Your task to perform on an android device: allow notifications from all sites in the chrome app Image 0: 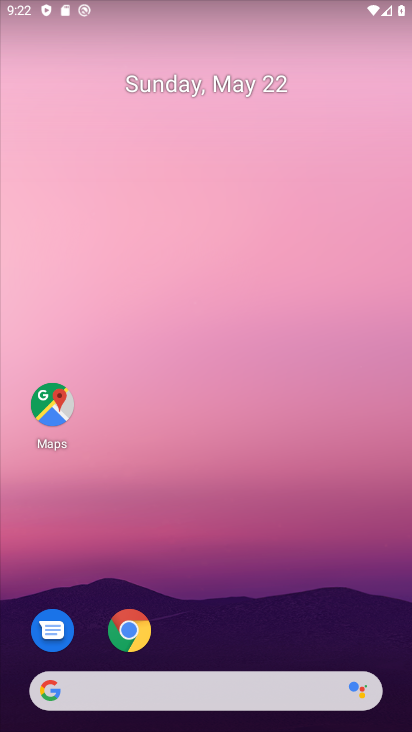
Step 0: drag from (379, 630) to (368, 179)
Your task to perform on an android device: allow notifications from all sites in the chrome app Image 1: 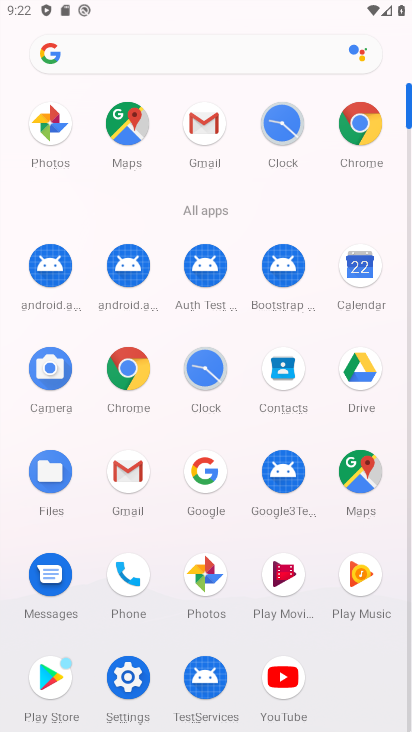
Step 1: click (124, 388)
Your task to perform on an android device: allow notifications from all sites in the chrome app Image 2: 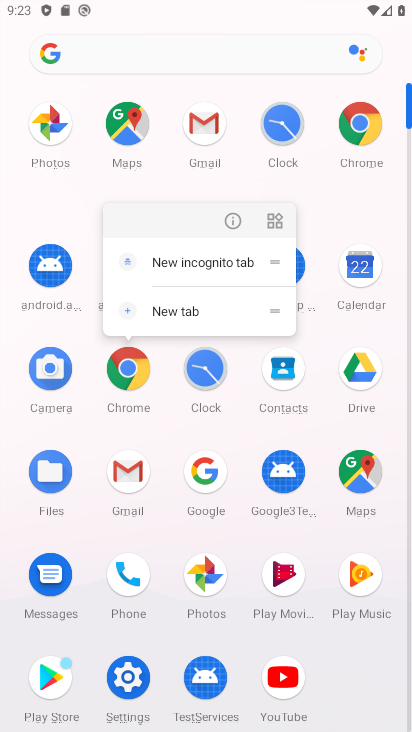
Step 2: click (364, 123)
Your task to perform on an android device: allow notifications from all sites in the chrome app Image 3: 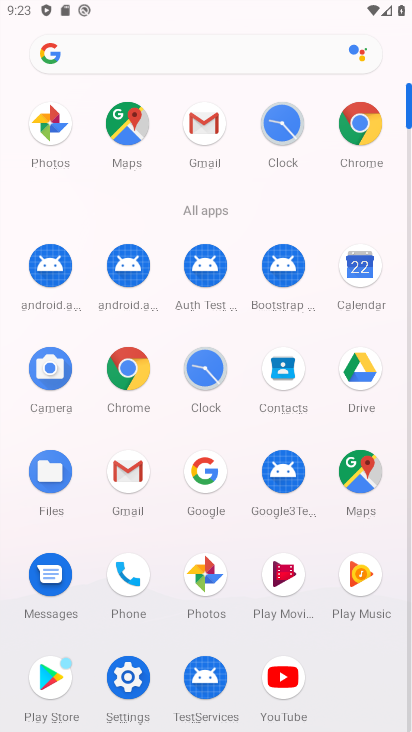
Step 3: click (131, 382)
Your task to perform on an android device: allow notifications from all sites in the chrome app Image 4: 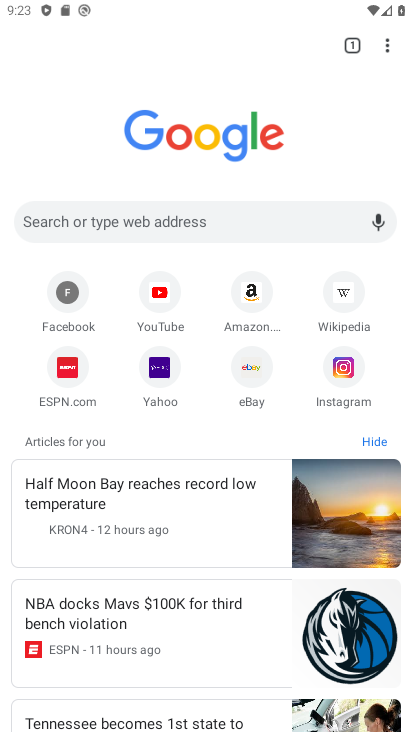
Step 4: click (388, 52)
Your task to perform on an android device: allow notifications from all sites in the chrome app Image 5: 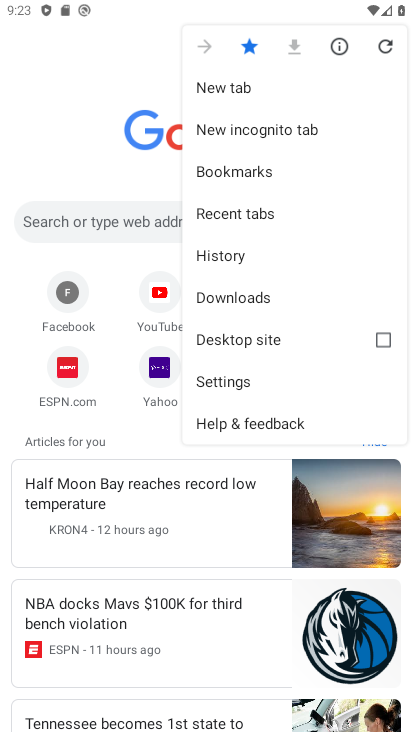
Step 5: click (231, 376)
Your task to perform on an android device: allow notifications from all sites in the chrome app Image 6: 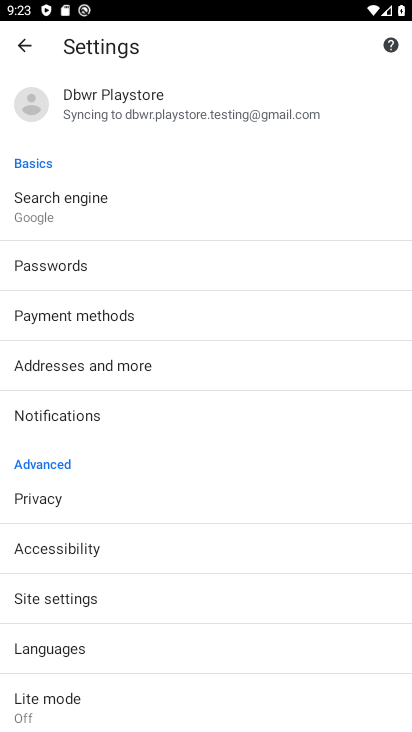
Step 6: drag from (267, 539) to (276, 391)
Your task to perform on an android device: allow notifications from all sites in the chrome app Image 7: 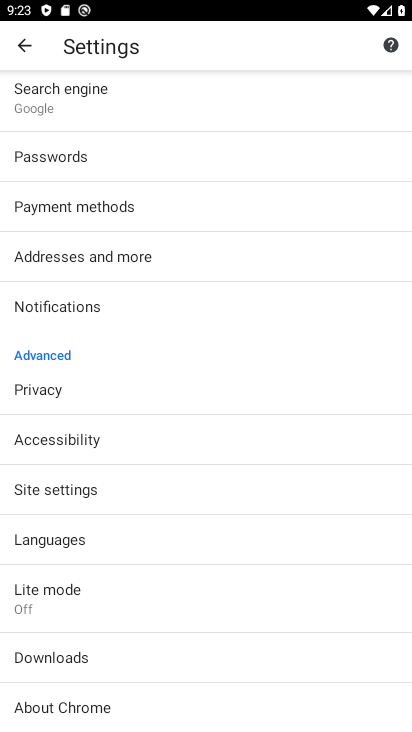
Step 7: drag from (259, 613) to (283, 466)
Your task to perform on an android device: allow notifications from all sites in the chrome app Image 8: 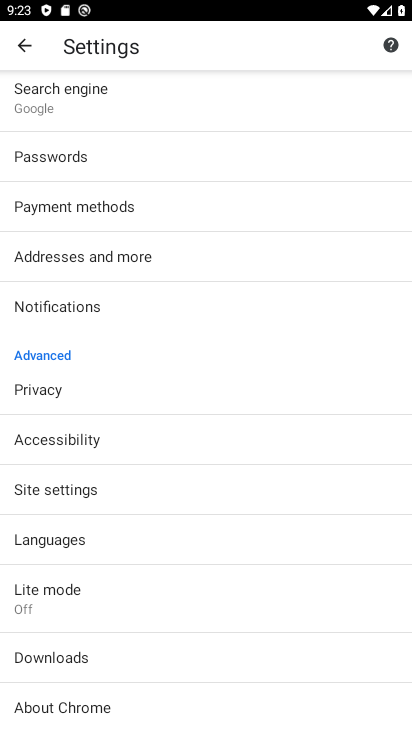
Step 8: drag from (268, 583) to (285, 384)
Your task to perform on an android device: allow notifications from all sites in the chrome app Image 9: 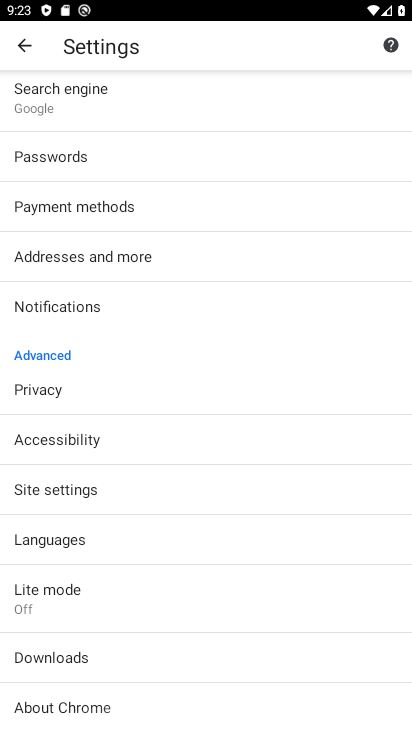
Step 9: drag from (313, 336) to (321, 401)
Your task to perform on an android device: allow notifications from all sites in the chrome app Image 10: 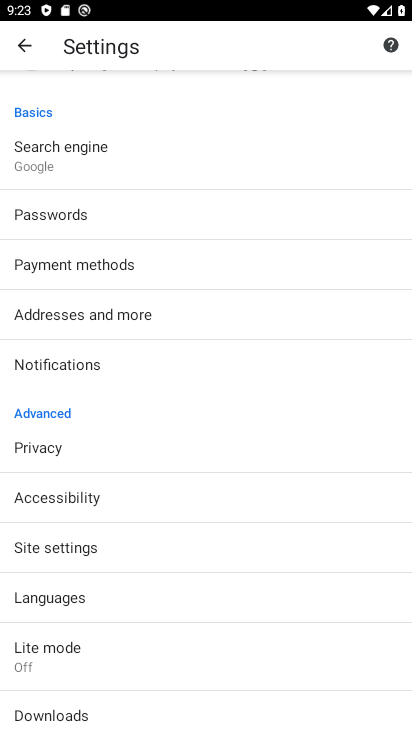
Step 10: drag from (320, 247) to (299, 399)
Your task to perform on an android device: allow notifications from all sites in the chrome app Image 11: 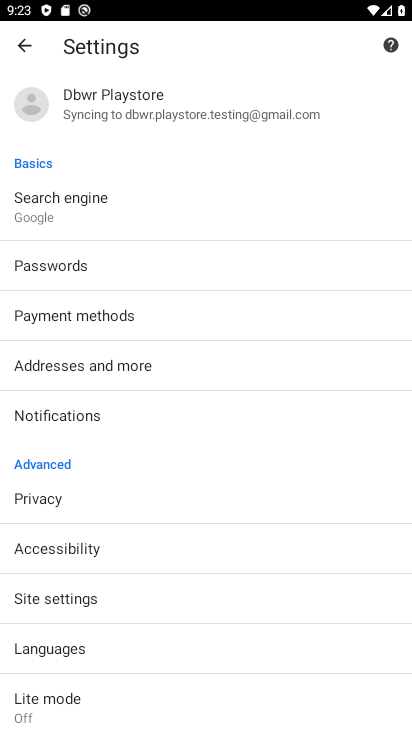
Step 11: drag from (300, 273) to (288, 507)
Your task to perform on an android device: allow notifications from all sites in the chrome app Image 12: 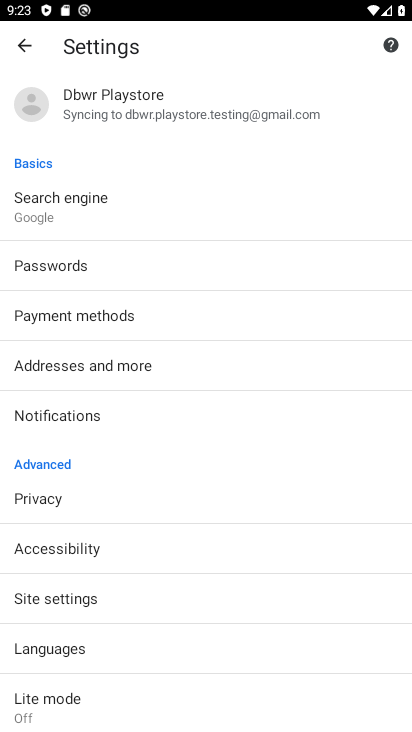
Step 12: click (171, 591)
Your task to perform on an android device: allow notifications from all sites in the chrome app Image 13: 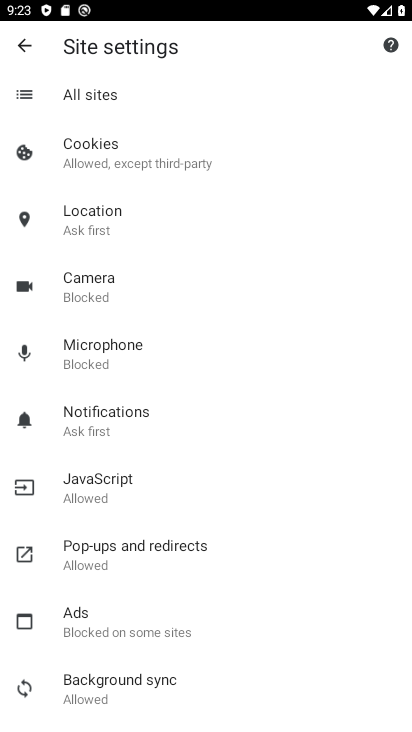
Step 13: drag from (253, 614) to (276, 465)
Your task to perform on an android device: allow notifications from all sites in the chrome app Image 14: 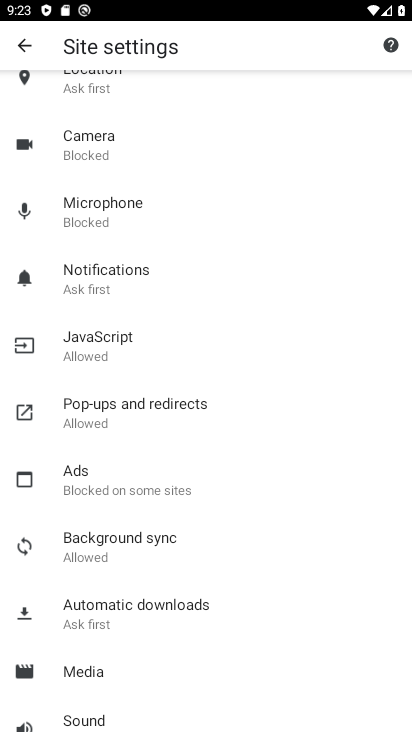
Step 14: drag from (289, 536) to (296, 432)
Your task to perform on an android device: allow notifications from all sites in the chrome app Image 15: 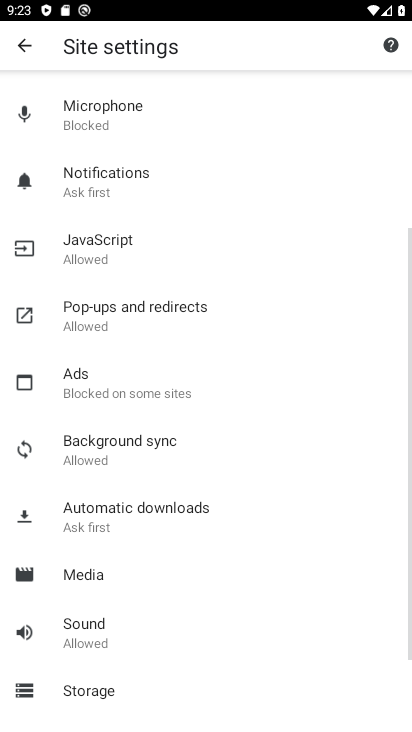
Step 15: drag from (291, 601) to (290, 465)
Your task to perform on an android device: allow notifications from all sites in the chrome app Image 16: 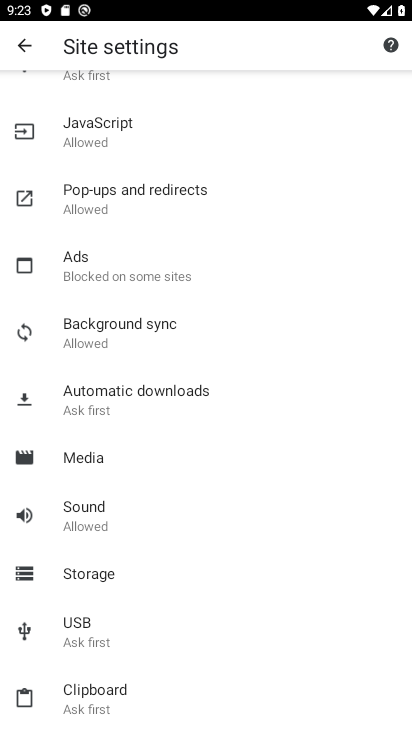
Step 16: drag from (282, 585) to (276, 446)
Your task to perform on an android device: allow notifications from all sites in the chrome app Image 17: 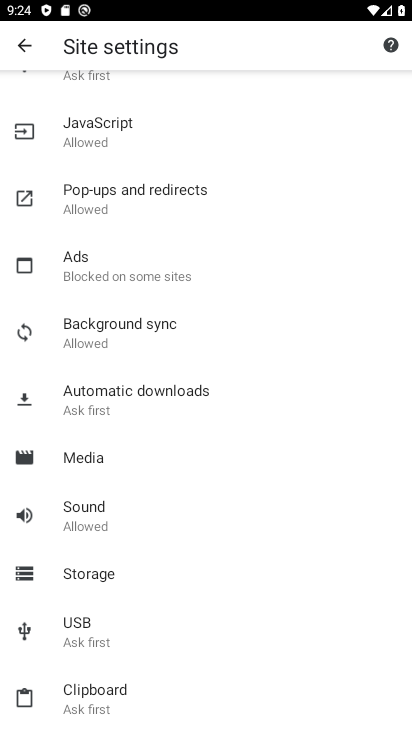
Step 17: drag from (352, 282) to (319, 436)
Your task to perform on an android device: allow notifications from all sites in the chrome app Image 18: 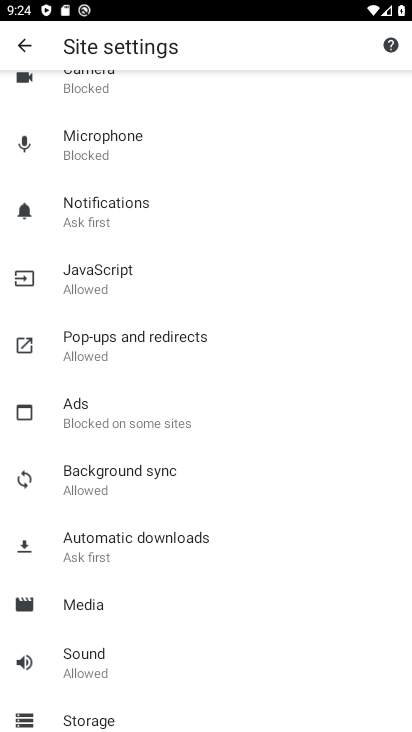
Step 18: drag from (318, 306) to (301, 489)
Your task to perform on an android device: allow notifications from all sites in the chrome app Image 19: 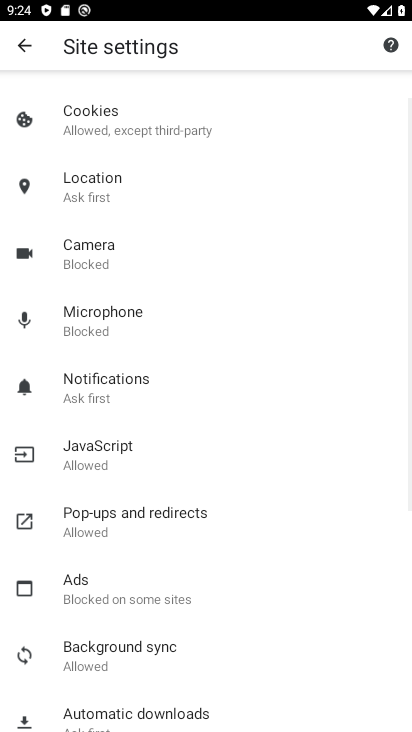
Step 19: drag from (300, 288) to (306, 452)
Your task to perform on an android device: allow notifications from all sites in the chrome app Image 20: 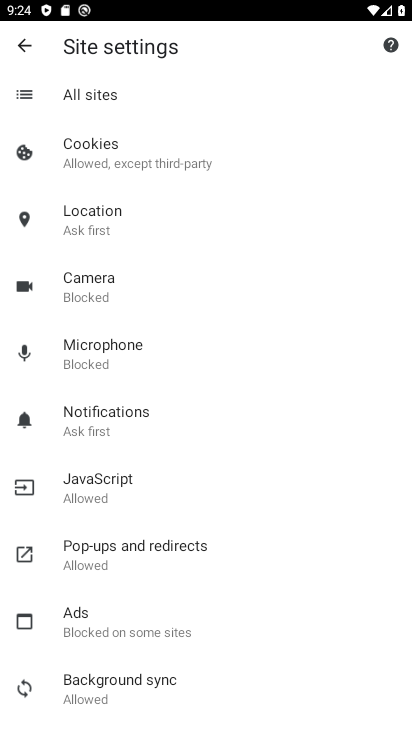
Step 20: click (145, 423)
Your task to perform on an android device: allow notifications from all sites in the chrome app Image 21: 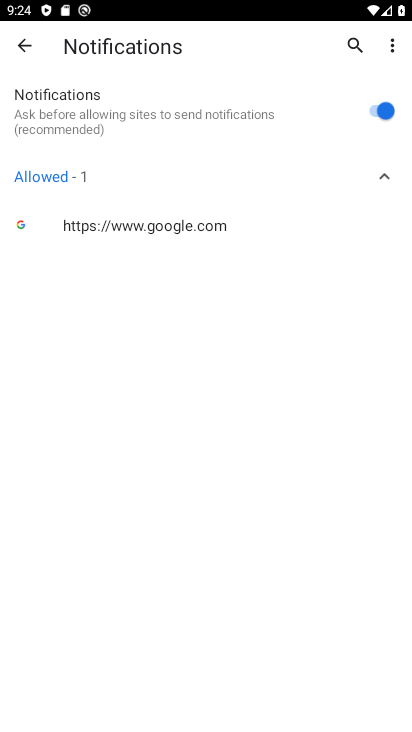
Step 21: task complete